Your task to perform on an android device: Clear the shopping cart on newegg. Search for usb-a on newegg, select the first entry, and add it to the cart. Image 0: 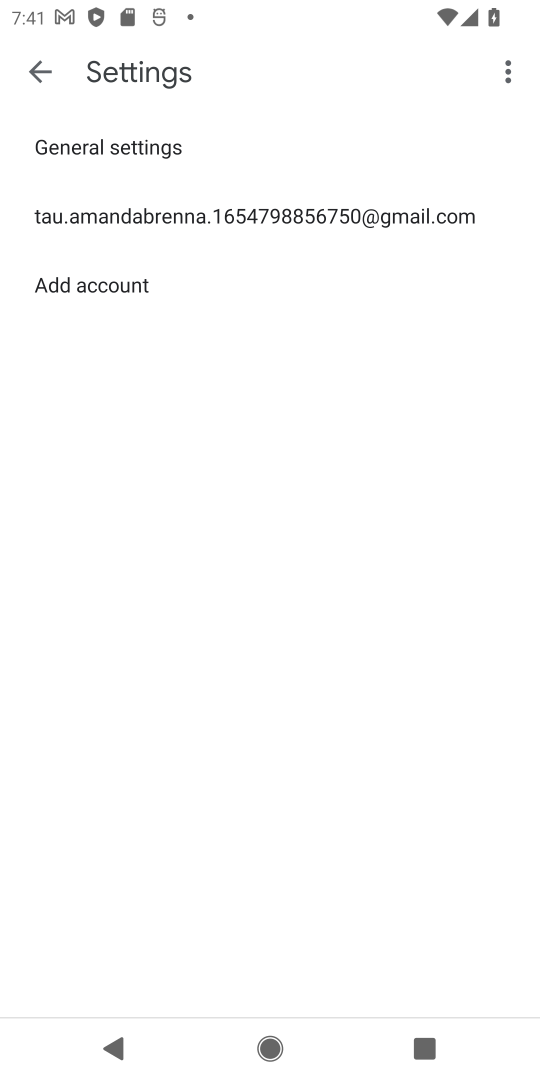
Step 0: press home button
Your task to perform on an android device: Clear the shopping cart on newegg. Search for usb-a on newegg, select the first entry, and add it to the cart. Image 1: 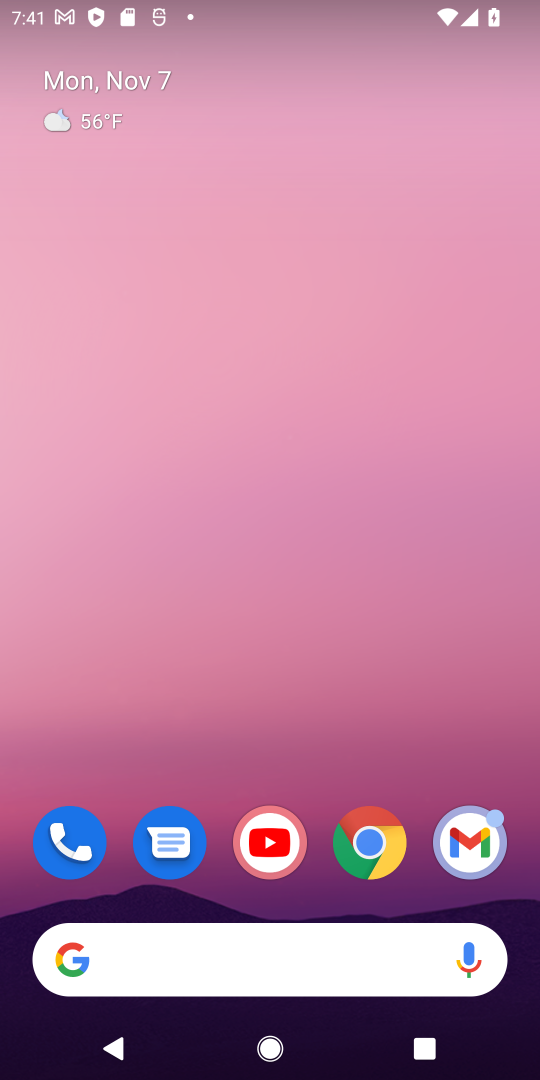
Step 1: click (366, 833)
Your task to perform on an android device: Clear the shopping cart on newegg. Search for usb-a on newegg, select the first entry, and add it to the cart. Image 2: 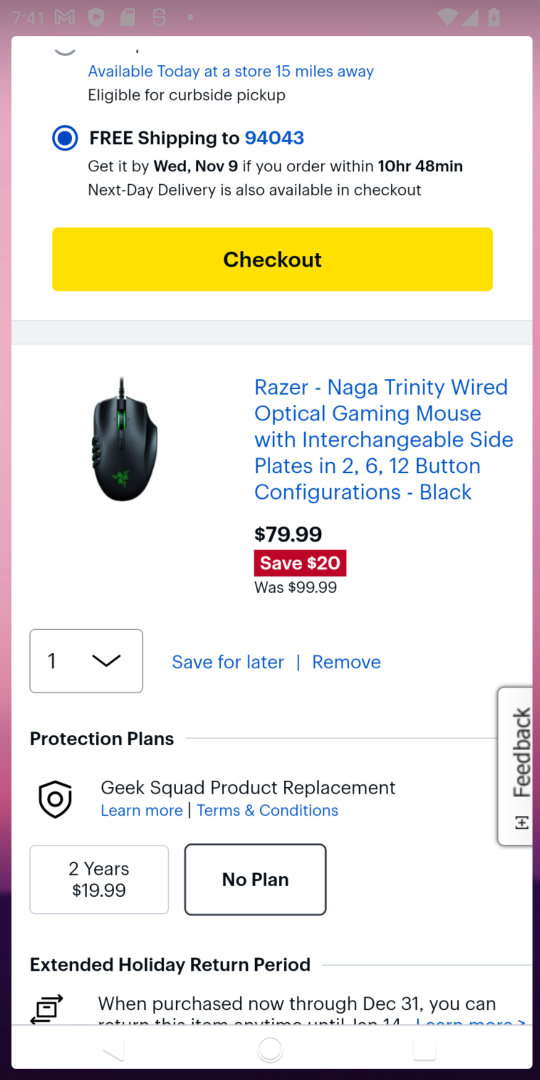
Step 2: click (366, 834)
Your task to perform on an android device: Clear the shopping cart on newegg. Search for usb-a on newegg, select the first entry, and add it to the cart. Image 3: 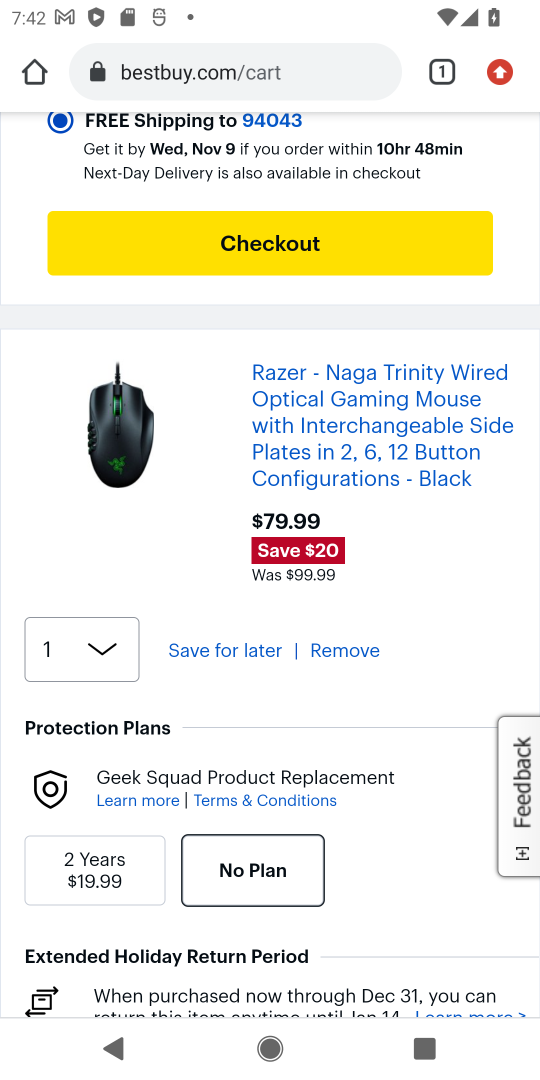
Step 3: click (262, 72)
Your task to perform on an android device: Clear the shopping cart on newegg. Search for usb-a on newegg, select the first entry, and add it to the cart. Image 4: 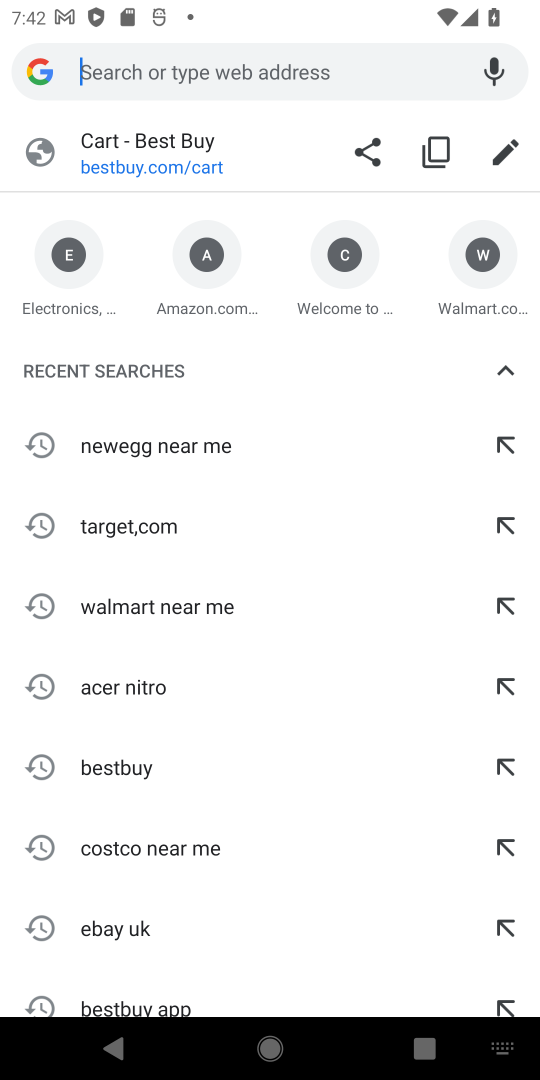
Step 4: press enter
Your task to perform on an android device: Clear the shopping cart on newegg. Search for usb-a on newegg, select the first entry, and add it to the cart. Image 5: 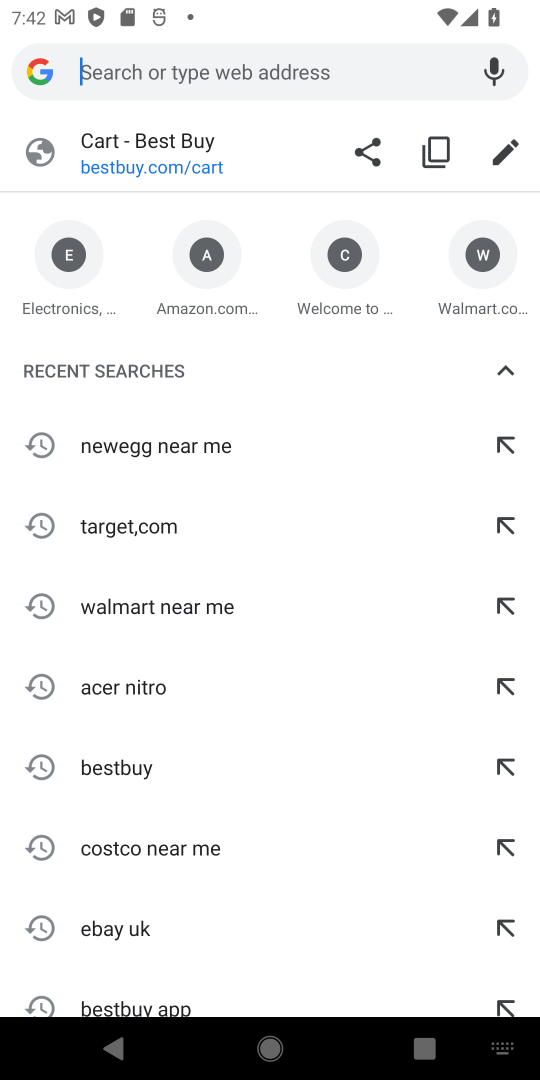
Step 5: type "newegg"
Your task to perform on an android device: Clear the shopping cart on newegg. Search for usb-a on newegg, select the first entry, and add it to the cart. Image 6: 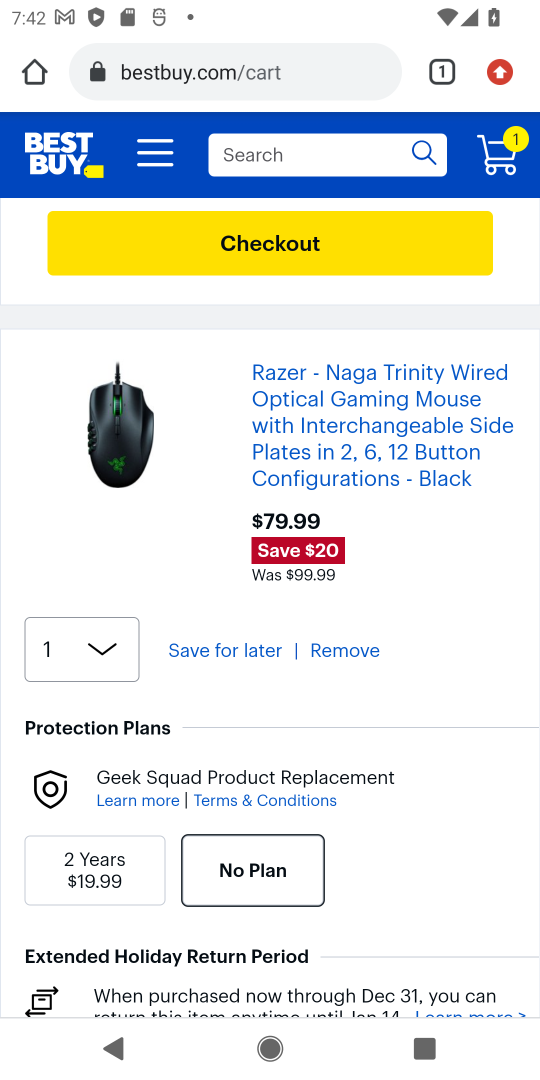
Step 6: click (186, 67)
Your task to perform on an android device: Clear the shopping cart on newegg. Search for usb-a on newegg, select the first entry, and add it to the cart. Image 7: 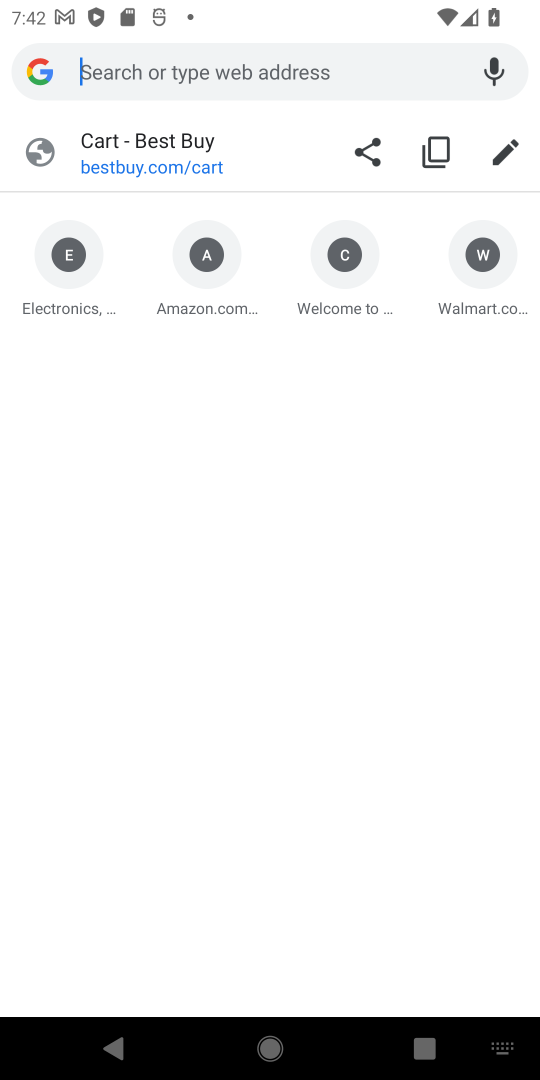
Step 7: type " newegg"
Your task to perform on an android device: Clear the shopping cart on newegg. Search for usb-a on newegg, select the first entry, and add it to the cart. Image 8: 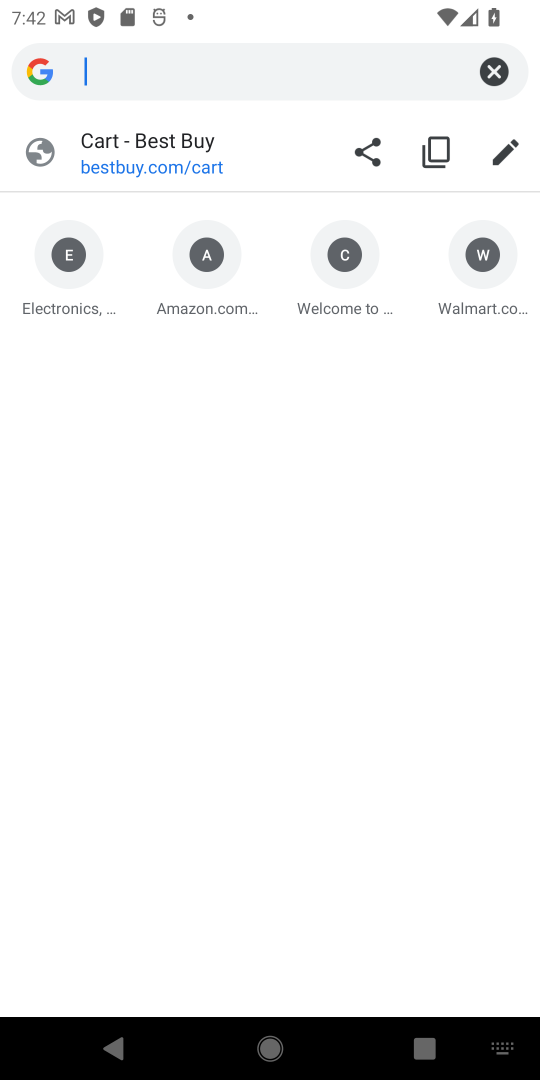
Step 8: press enter
Your task to perform on an android device: Clear the shopping cart on newegg. Search for usb-a on newegg, select the first entry, and add it to the cart. Image 9: 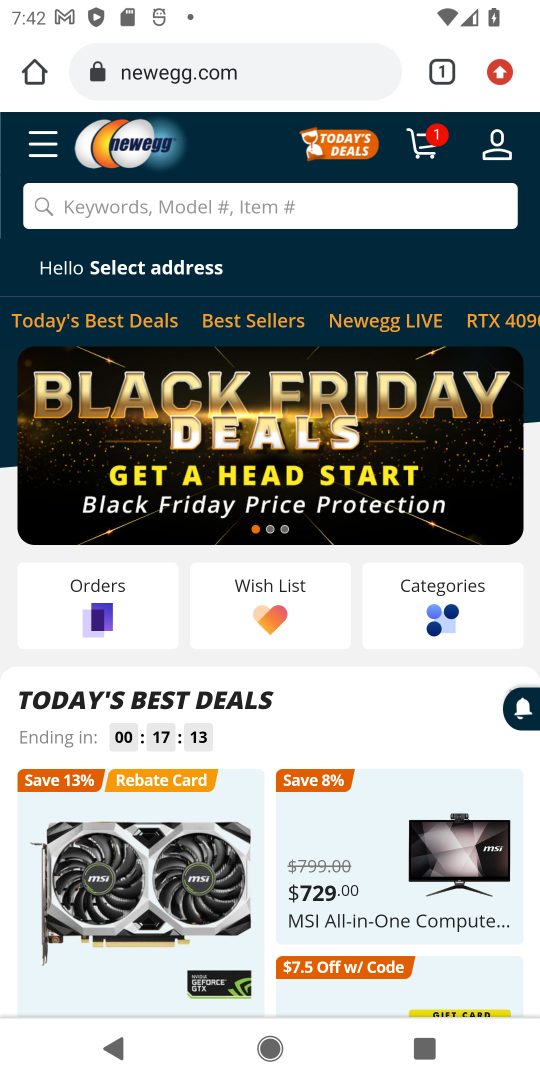
Step 9: click (147, 209)
Your task to perform on an android device: Clear the shopping cart on newegg. Search for usb-a on newegg, select the first entry, and add it to the cart. Image 10: 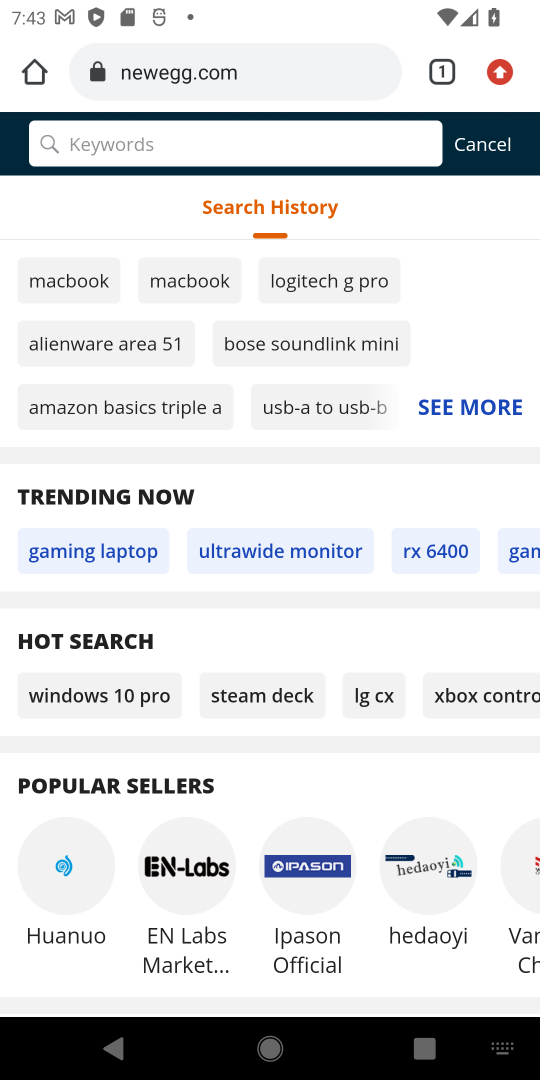
Step 10: type " usb-a"
Your task to perform on an android device: Clear the shopping cart on newegg. Search for usb-a on newegg, select the first entry, and add it to the cart. Image 11: 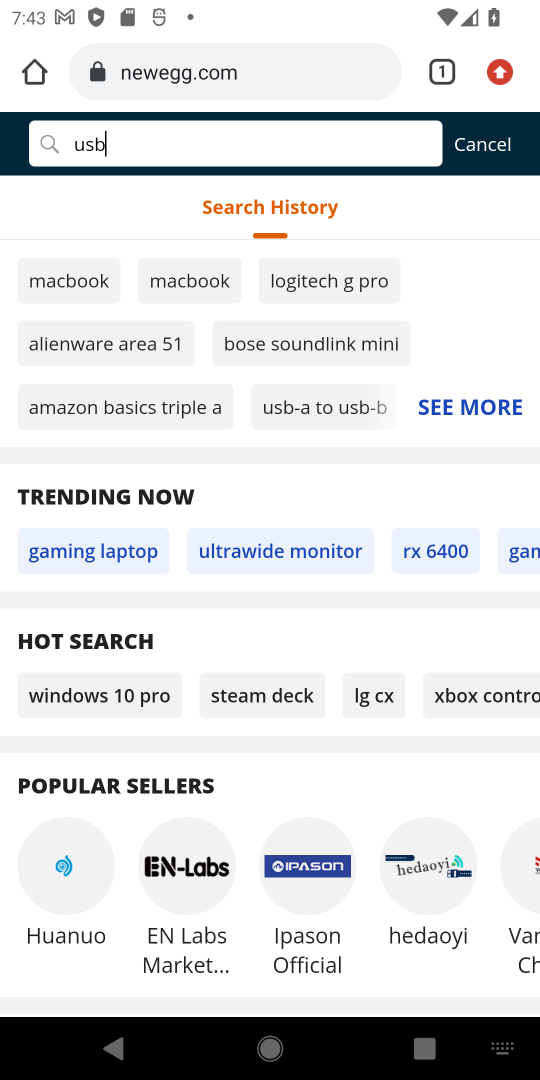
Step 11: press enter
Your task to perform on an android device: Clear the shopping cart on newegg. Search for usb-a on newegg, select the first entry, and add it to the cart. Image 12: 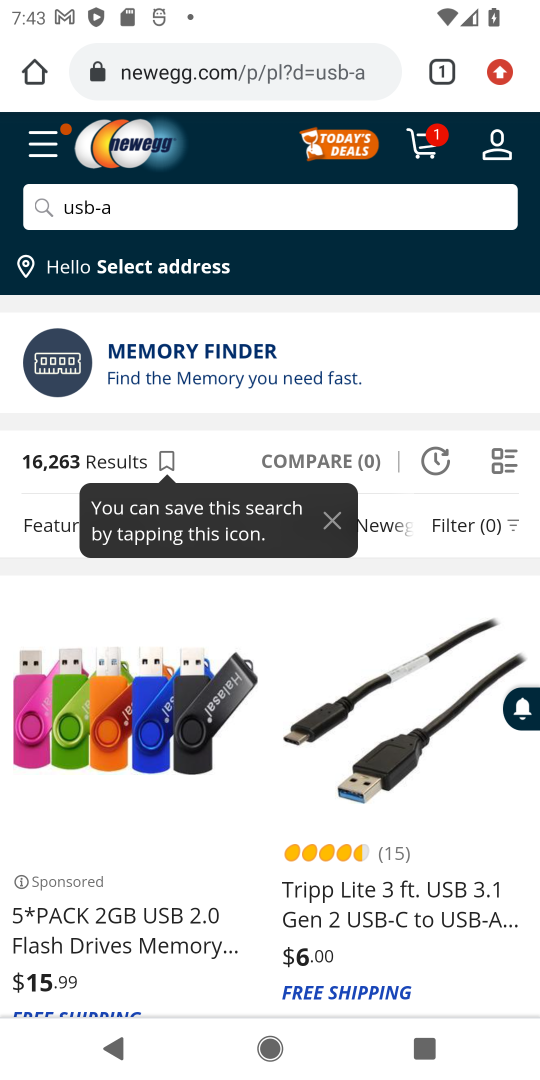
Step 12: drag from (129, 949) to (394, 473)
Your task to perform on an android device: Clear the shopping cart on newegg. Search for usb-a on newegg, select the first entry, and add it to the cart. Image 13: 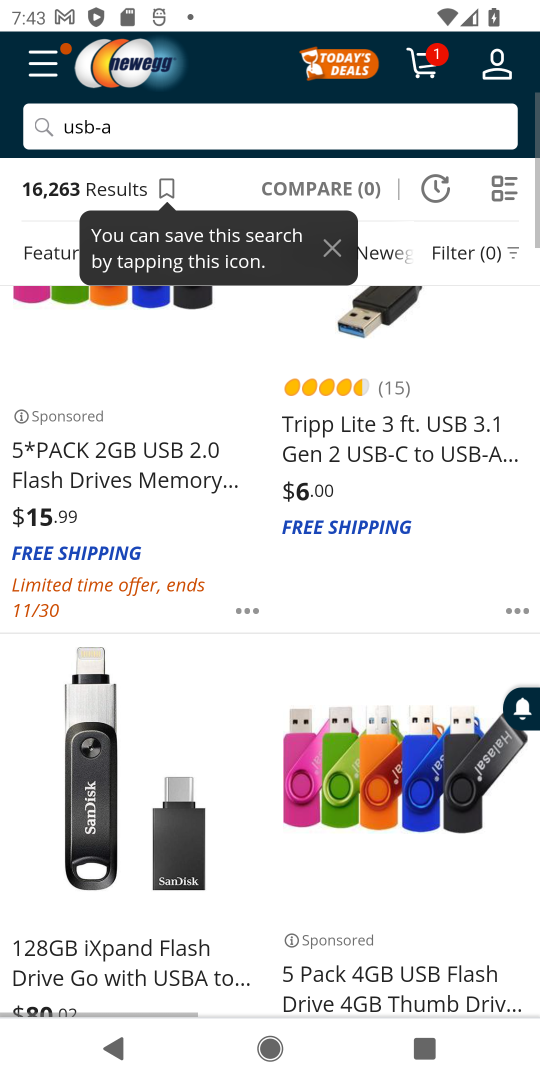
Step 13: drag from (362, 497) to (333, 911)
Your task to perform on an android device: Clear the shopping cart on newegg. Search for usb-a on newegg, select the first entry, and add it to the cart. Image 14: 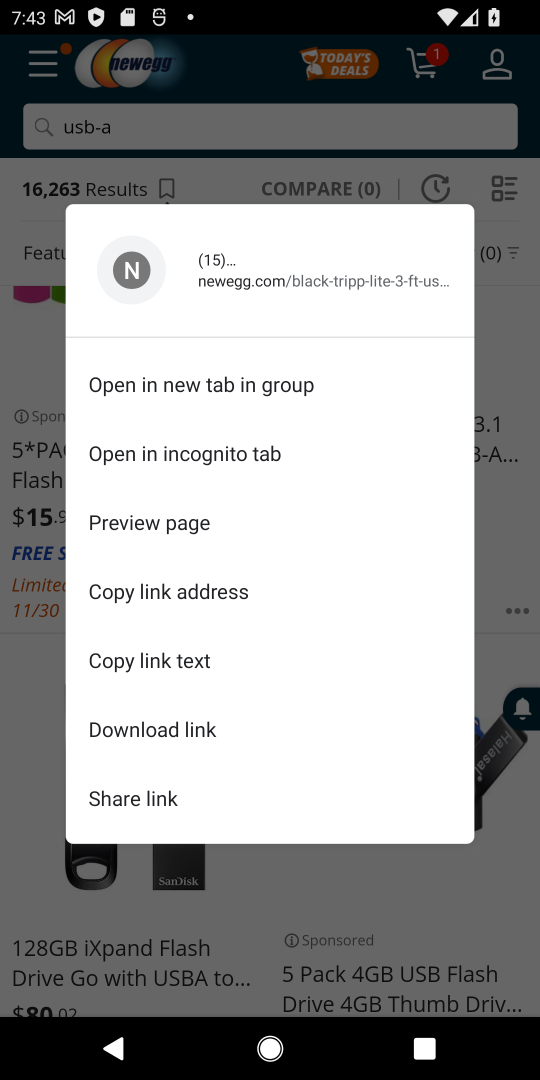
Step 14: drag from (497, 510) to (460, 913)
Your task to perform on an android device: Clear the shopping cart on newegg. Search for usb-a on newegg, select the first entry, and add it to the cart. Image 15: 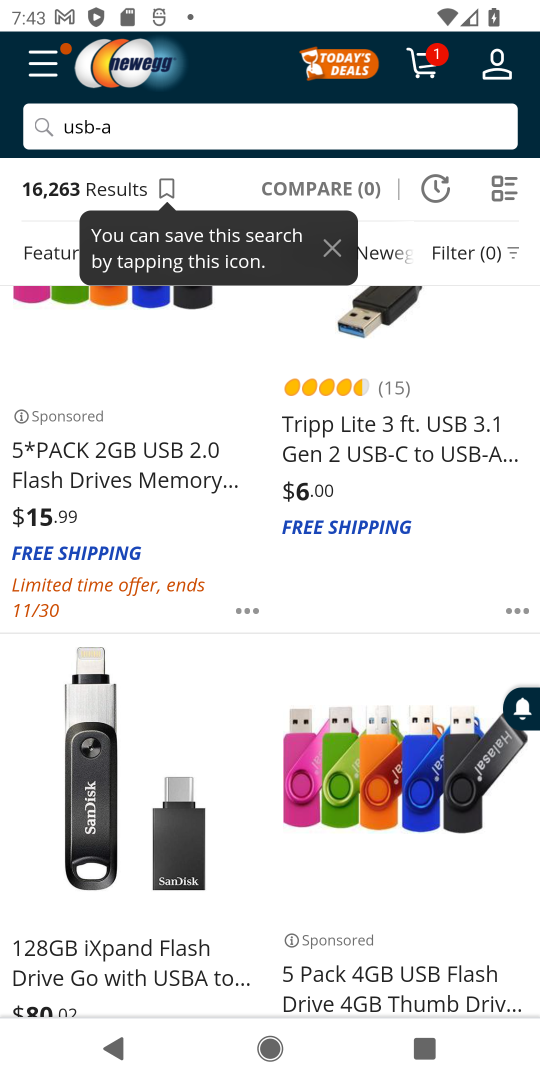
Step 15: drag from (175, 480) to (158, 773)
Your task to perform on an android device: Clear the shopping cart on newegg. Search for usb-a on newegg, select the first entry, and add it to the cart. Image 16: 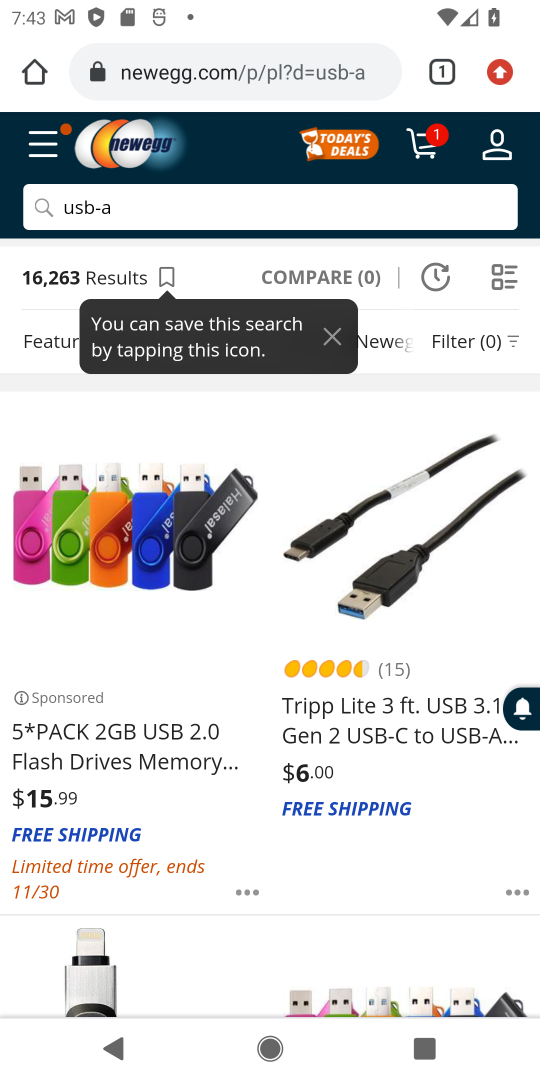
Step 16: click (128, 585)
Your task to perform on an android device: Clear the shopping cart on newegg. Search for usb-a on newegg, select the first entry, and add it to the cart. Image 17: 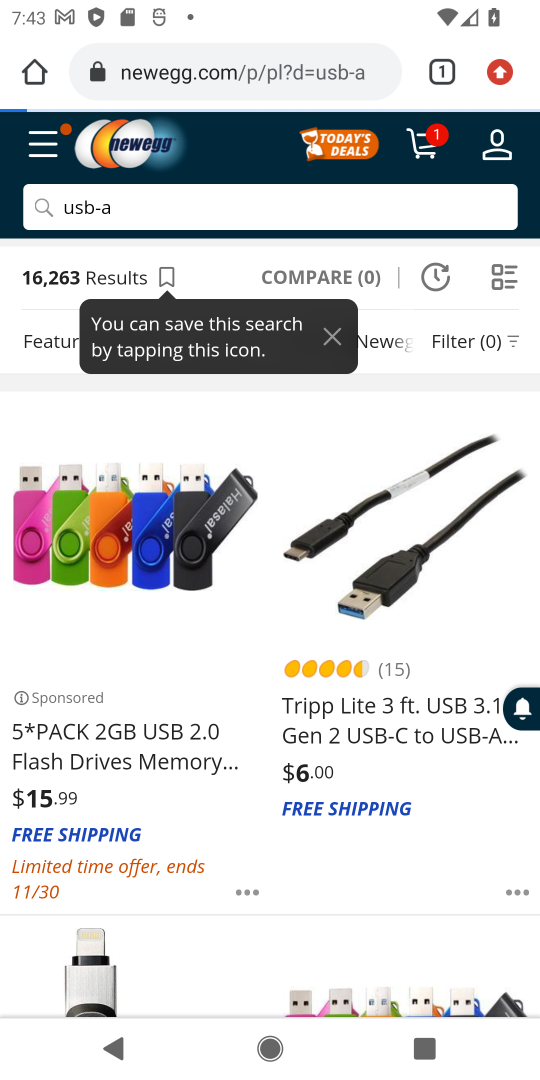
Step 17: click (116, 545)
Your task to perform on an android device: Clear the shopping cart on newegg. Search for usb-a on newegg, select the first entry, and add it to the cart. Image 18: 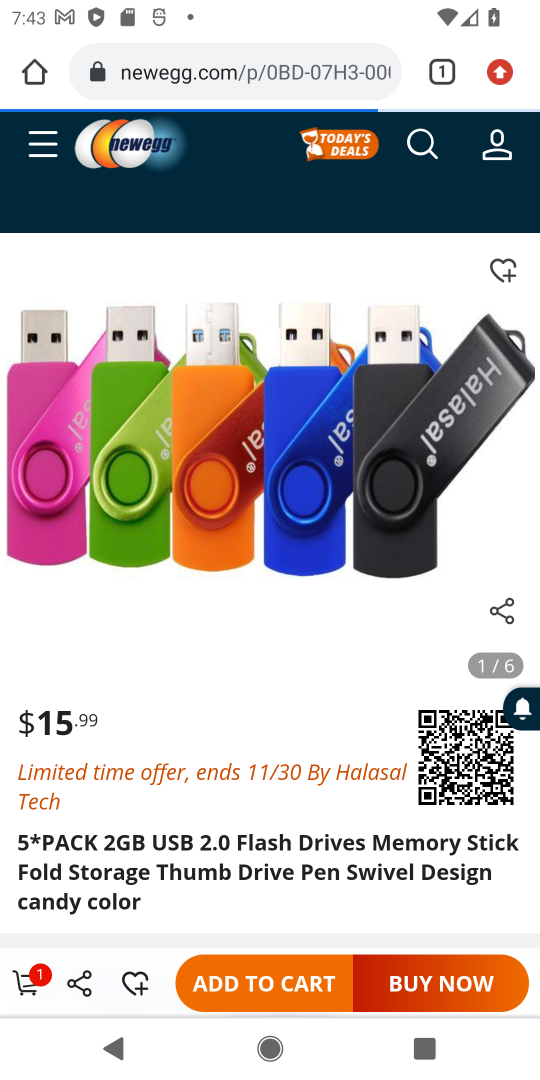
Step 18: click (104, 732)
Your task to perform on an android device: Clear the shopping cart on newegg. Search for usb-a on newegg, select the first entry, and add it to the cart. Image 19: 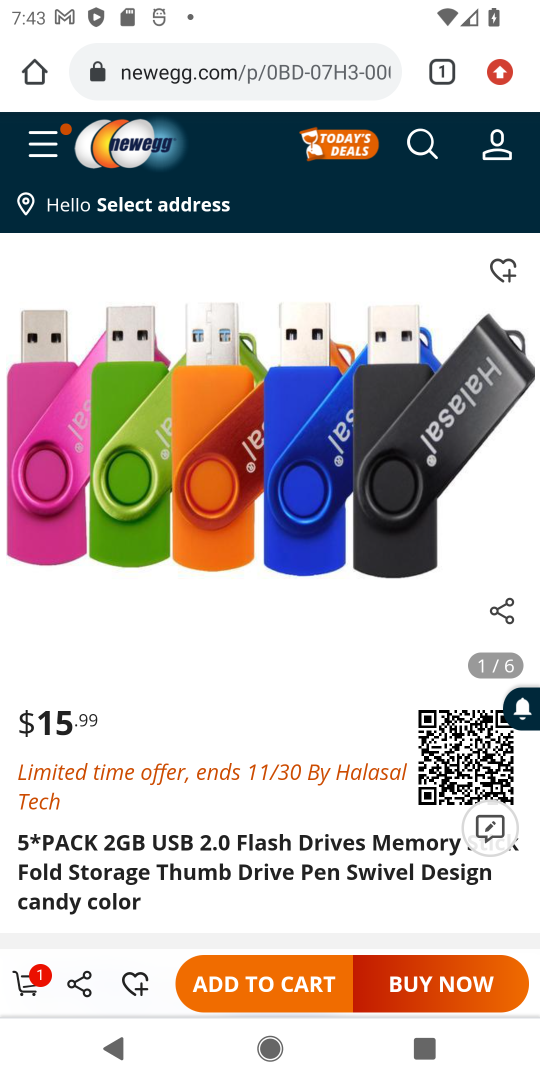
Step 19: task complete